Your task to perform on an android device: check google app version Image 0: 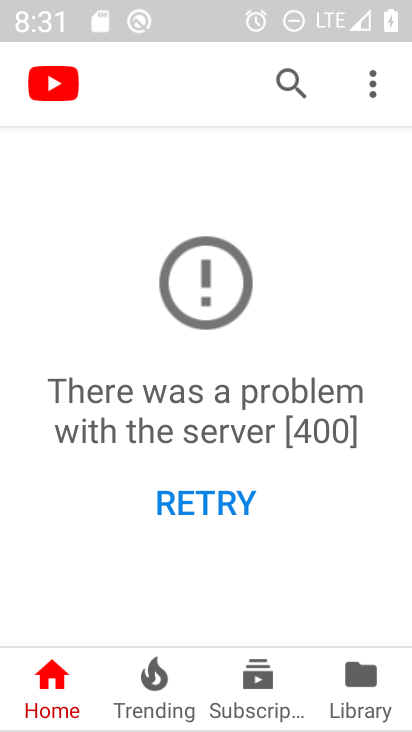
Step 0: press home button
Your task to perform on an android device: check google app version Image 1: 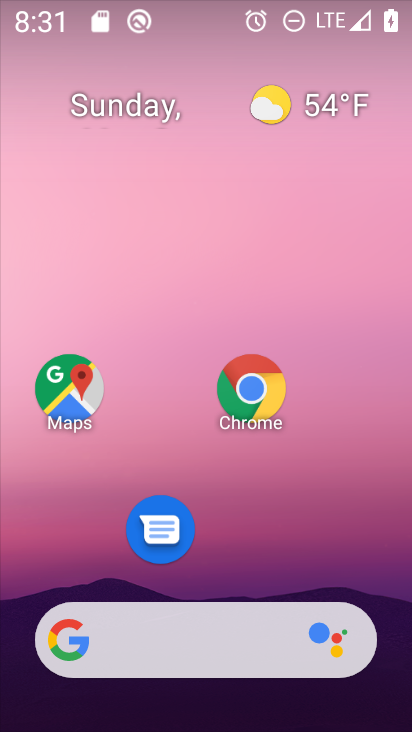
Step 1: click (69, 643)
Your task to perform on an android device: check google app version Image 2: 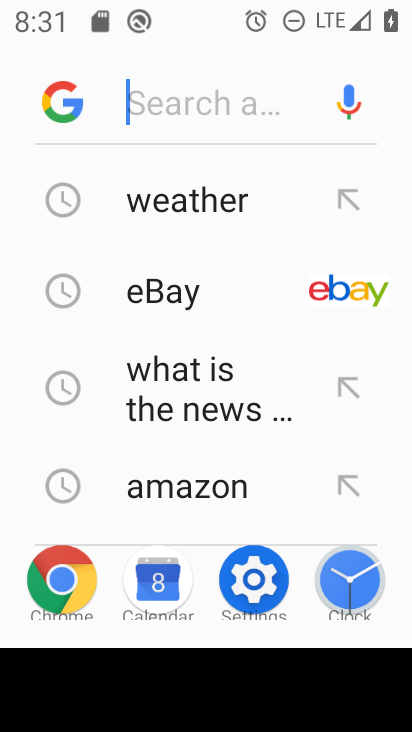
Step 2: click (50, 104)
Your task to perform on an android device: check google app version Image 3: 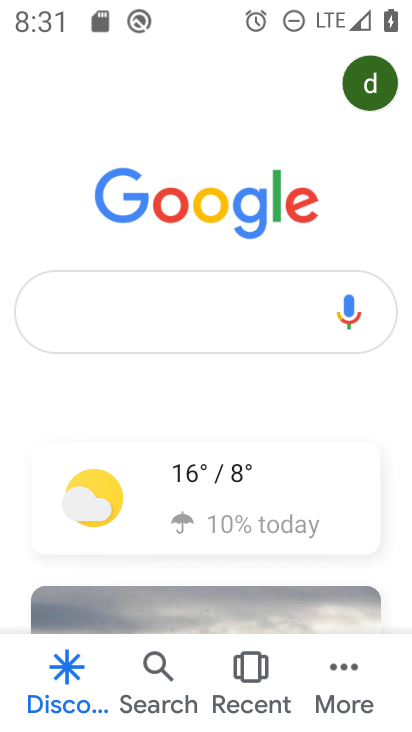
Step 3: click (333, 653)
Your task to perform on an android device: check google app version Image 4: 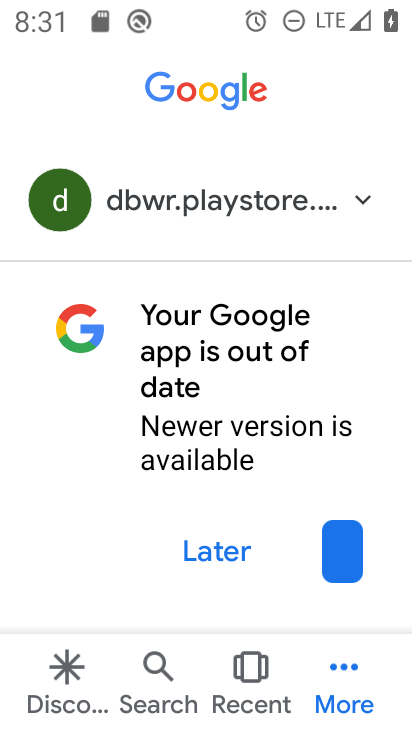
Step 4: click (338, 660)
Your task to perform on an android device: check google app version Image 5: 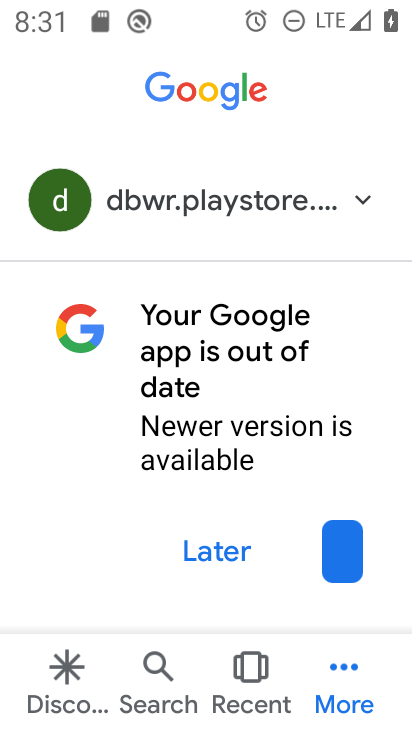
Step 5: click (224, 550)
Your task to perform on an android device: check google app version Image 6: 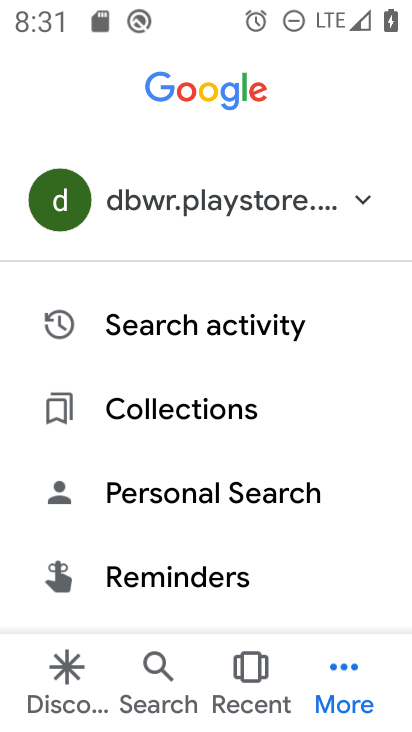
Step 6: drag from (175, 519) to (207, 177)
Your task to perform on an android device: check google app version Image 7: 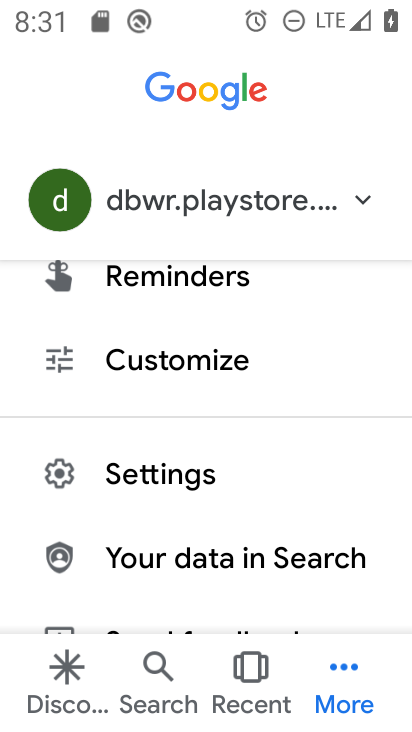
Step 7: drag from (159, 569) to (187, 406)
Your task to perform on an android device: check google app version Image 8: 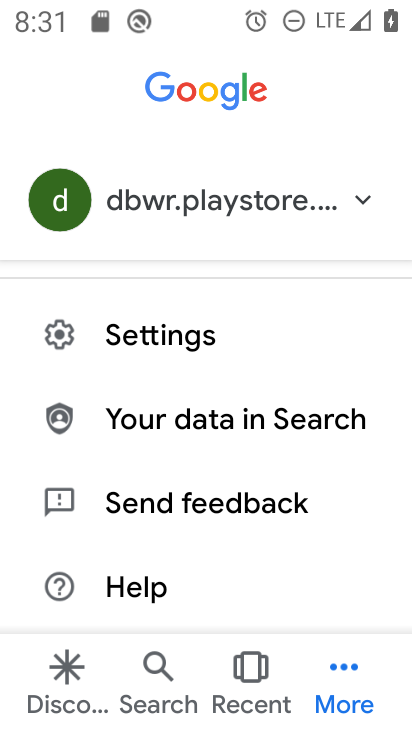
Step 8: click (132, 448)
Your task to perform on an android device: check google app version Image 9: 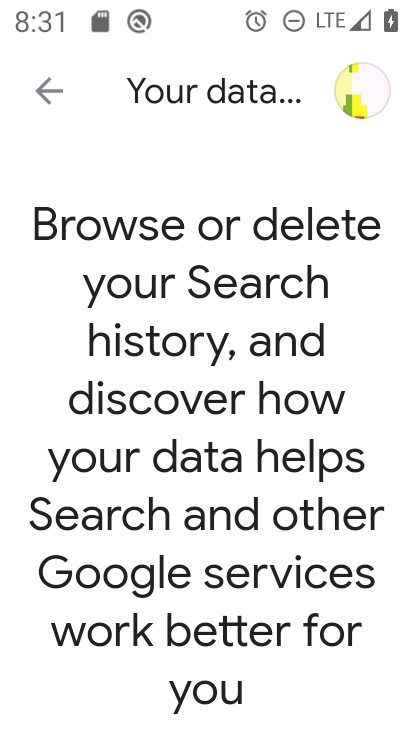
Step 9: drag from (173, 611) to (231, 208)
Your task to perform on an android device: check google app version Image 10: 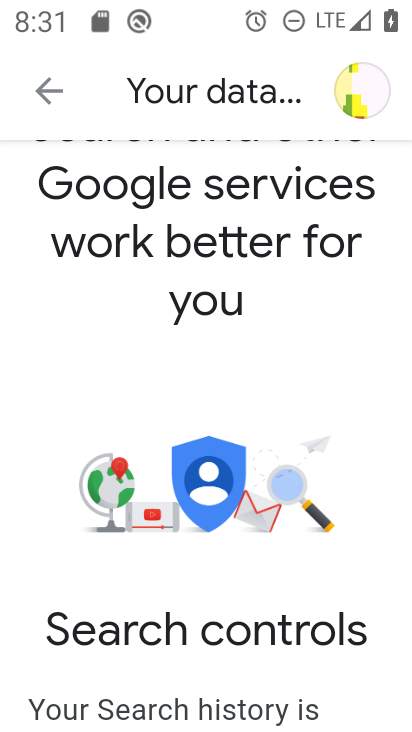
Step 10: drag from (202, 544) to (255, 164)
Your task to perform on an android device: check google app version Image 11: 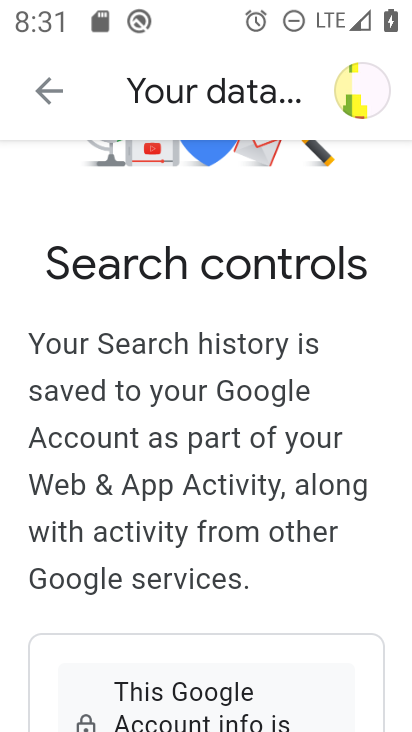
Step 11: drag from (228, 558) to (254, 169)
Your task to perform on an android device: check google app version Image 12: 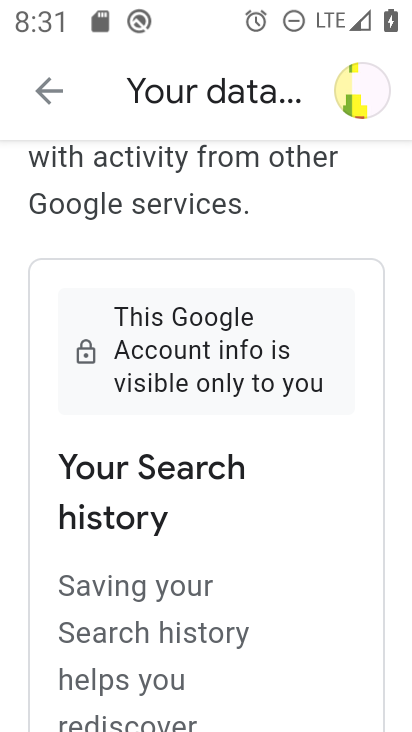
Step 12: drag from (227, 529) to (225, 237)
Your task to perform on an android device: check google app version Image 13: 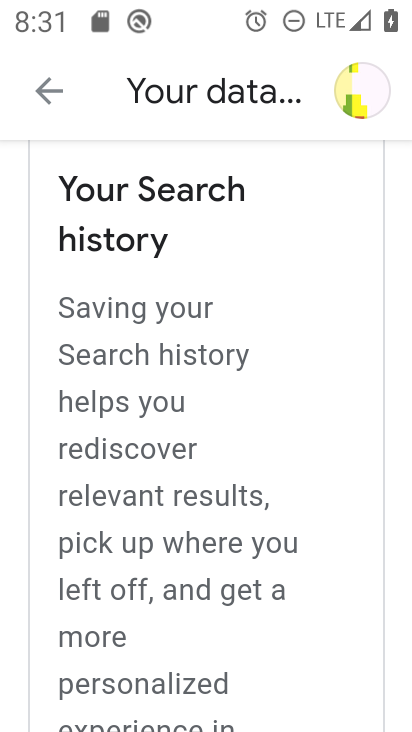
Step 13: click (50, 100)
Your task to perform on an android device: check google app version Image 14: 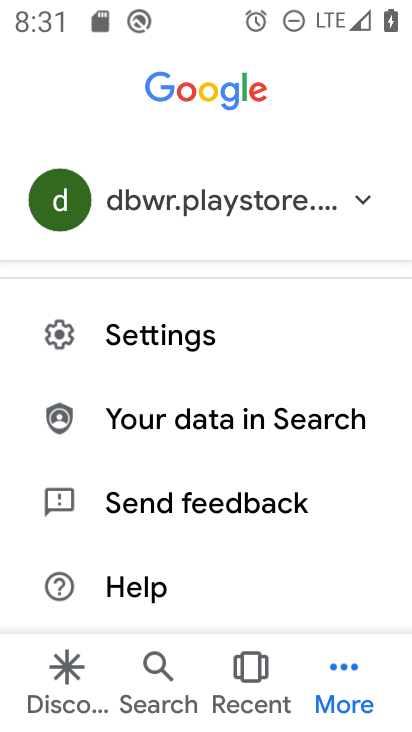
Step 14: drag from (177, 349) to (108, 348)
Your task to perform on an android device: check google app version Image 15: 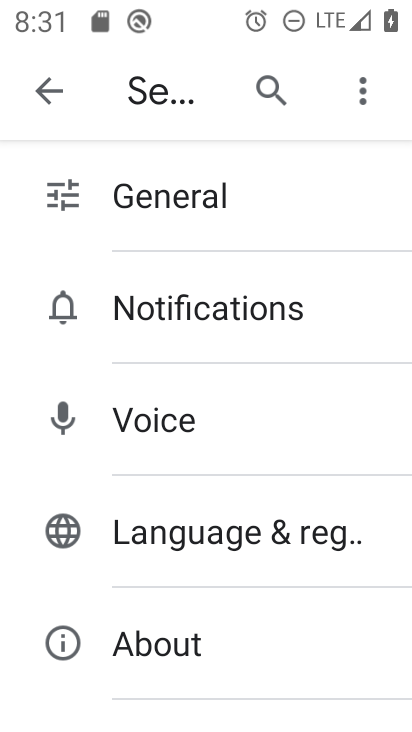
Step 15: click (176, 636)
Your task to perform on an android device: check google app version Image 16: 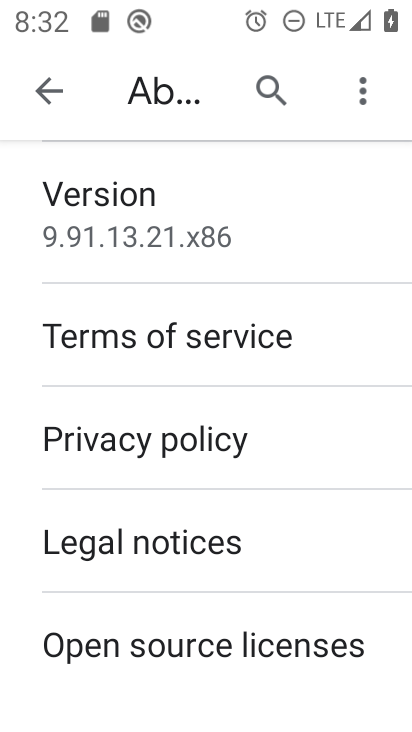
Step 16: task complete